Your task to perform on an android device: find which apps use the phone's location Image 0: 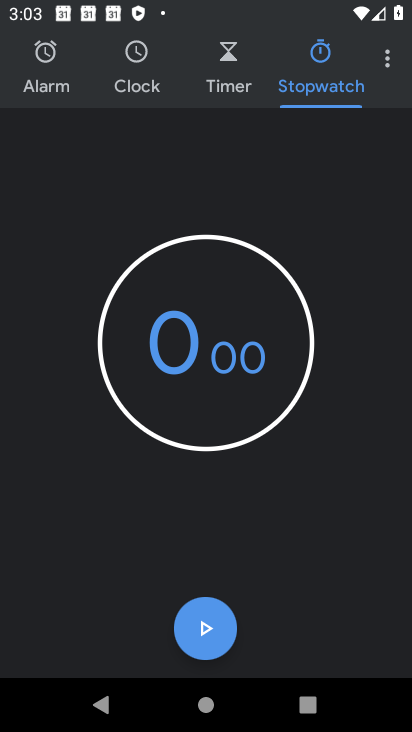
Step 0: press home button
Your task to perform on an android device: find which apps use the phone's location Image 1: 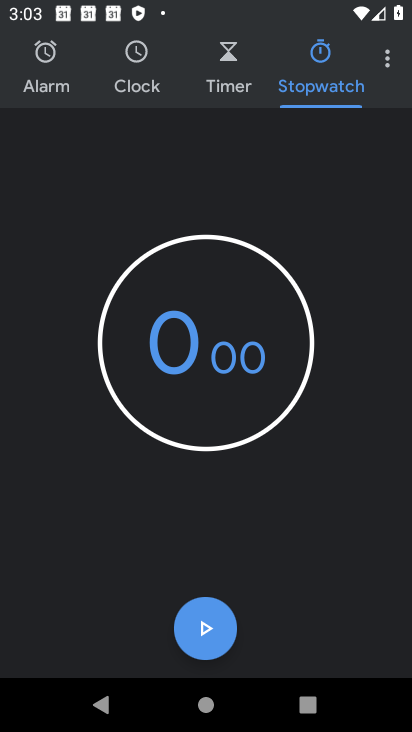
Step 1: press home button
Your task to perform on an android device: find which apps use the phone's location Image 2: 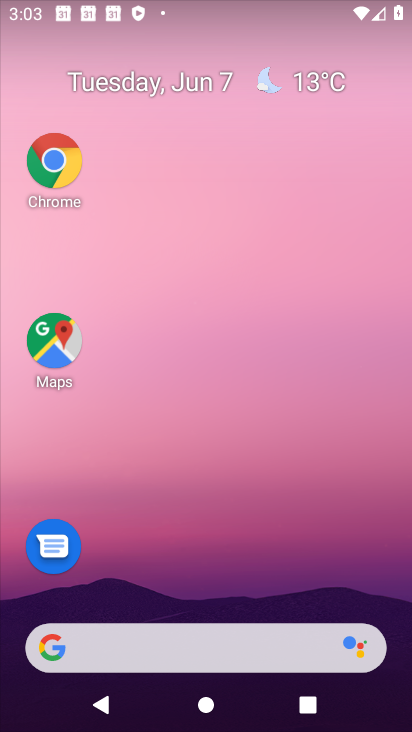
Step 2: drag from (185, 491) to (160, 53)
Your task to perform on an android device: find which apps use the phone's location Image 3: 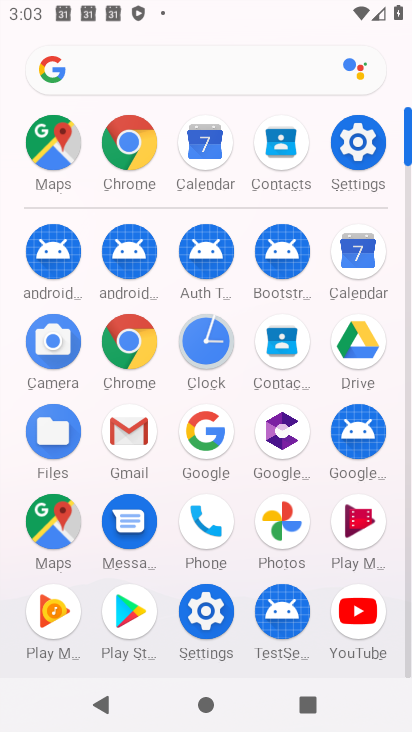
Step 3: click (363, 150)
Your task to perform on an android device: find which apps use the phone's location Image 4: 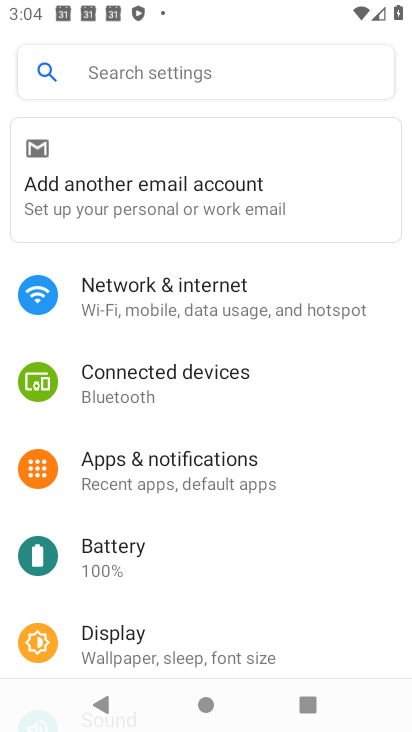
Step 4: drag from (214, 278) to (256, 107)
Your task to perform on an android device: find which apps use the phone's location Image 5: 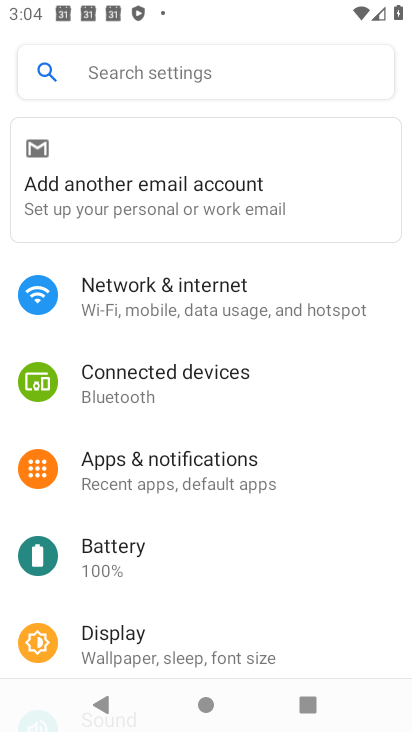
Step 5: drag from (213, 612) to (277, 155)
Your task to perform on an android device: find which apps use the phone's location Image 6: 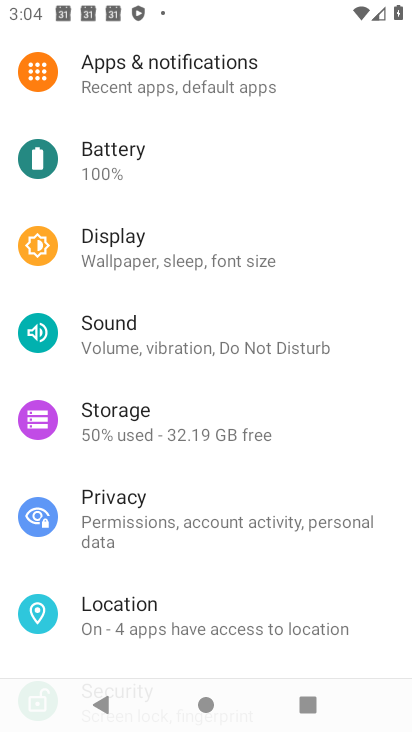
Step 6: click (118, 605)
Your task to perform on an android device: find which apps use the phone's location Image 7: 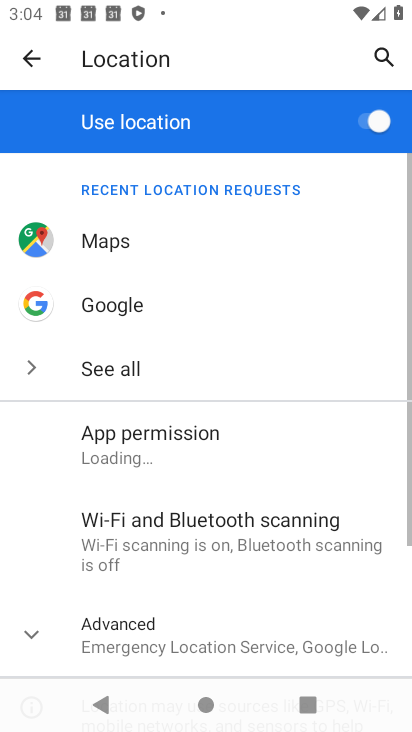
Step 7: click (154, 435)
Your task to perform on an android device: find which apps use the phone's location Image 8: 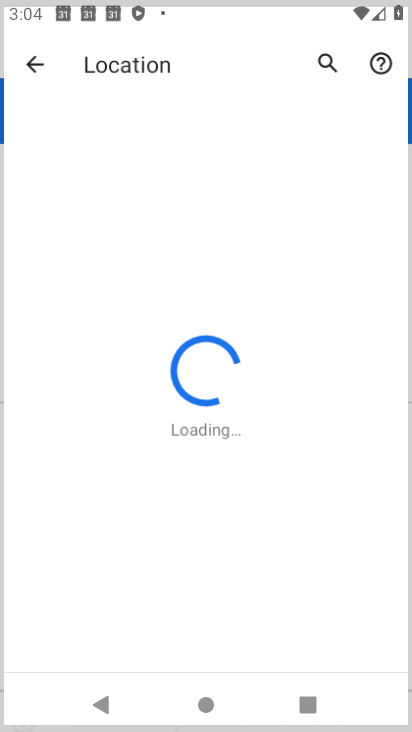
Step 8: task complete